Your task to perform on an android device: Go to settings Image 0: 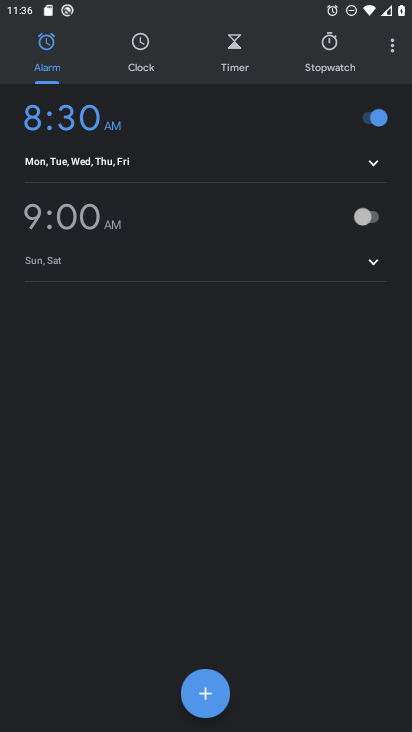
Step 0: press home button
Your task to perform on an android device: Go to settings Image 1: 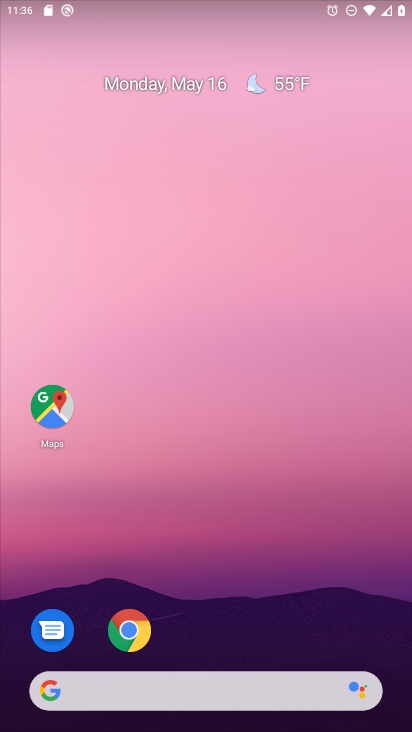
Step 1: drag from (211, 630) to (238, 256)
Your task to perform on an android device: Go to settings Image 2: 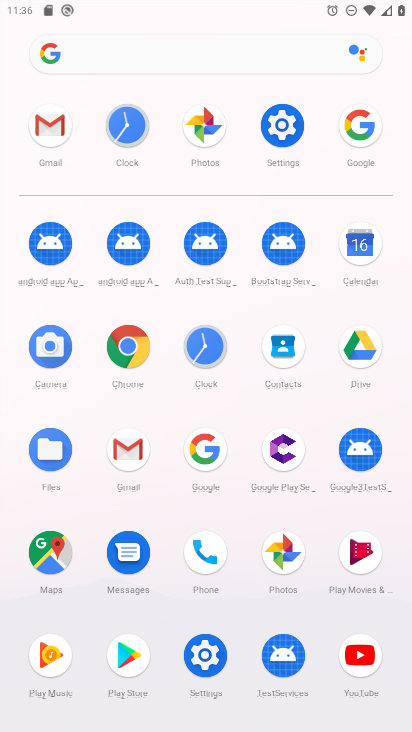
Step 2: click (279, 145)
Your task to perform on an android device: Go to settings Image 3: 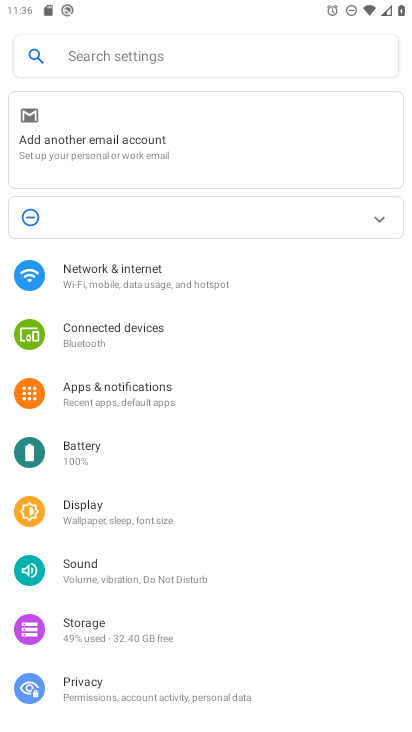
Step 3: task complete